Your task to perform on an android device: turn pop-ups on in chrome Image 0: 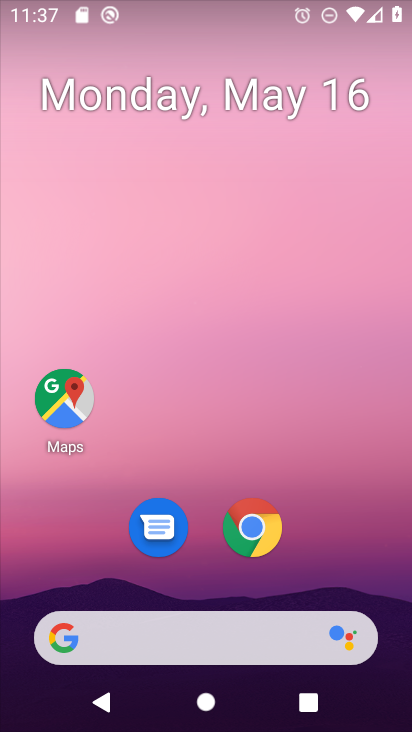
Step 0: click (259, 528)
Your task to perform on an android device: turn pop-ups on in chrome Image 1: 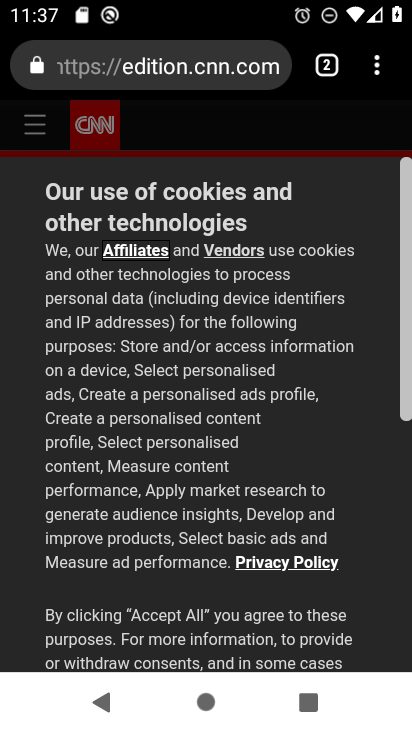
Step 1: click (378, 71)
Your task to perform on an android device: turn pop-ups on in chrome Image 2: 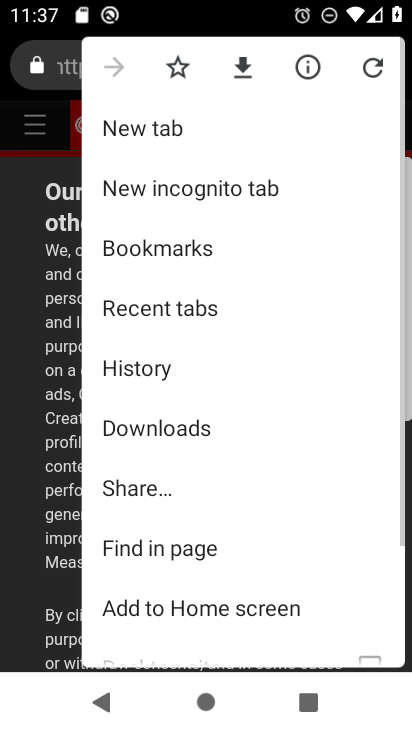
Step 2: drag from (188, 503) to (199, 219)
Your task to perform on an android device: turn pop-ups on in chrome Image 3: 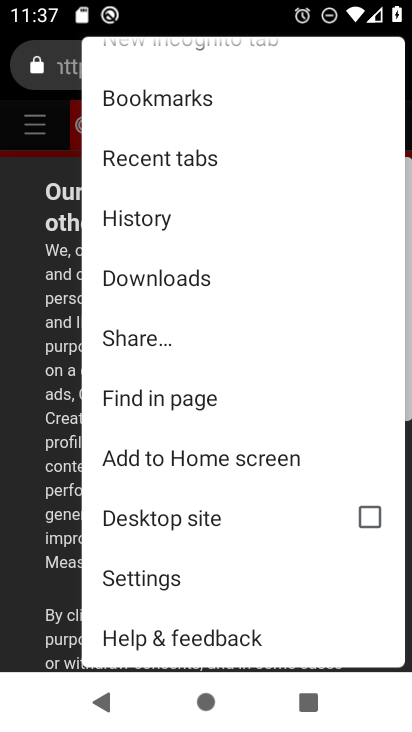
Step 3: click (142, 580)
Your task to perform on an android device: turn pop-ups on in chrome Image 4: 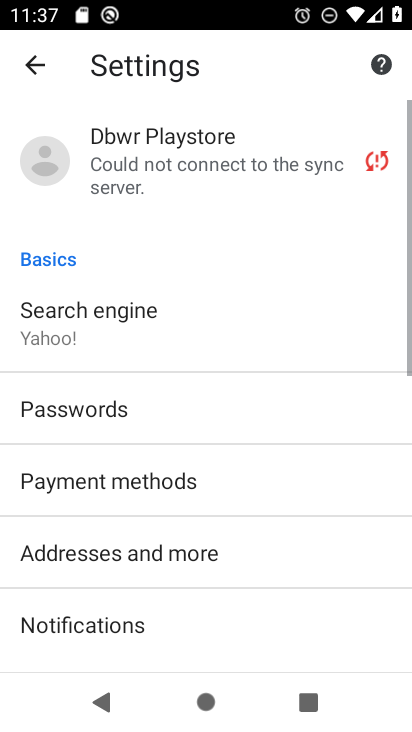
Step 4: drag from (179, 574) to (185, 158)
Your task to perform on an android device: turn pop-ups on in chrome Image 5: 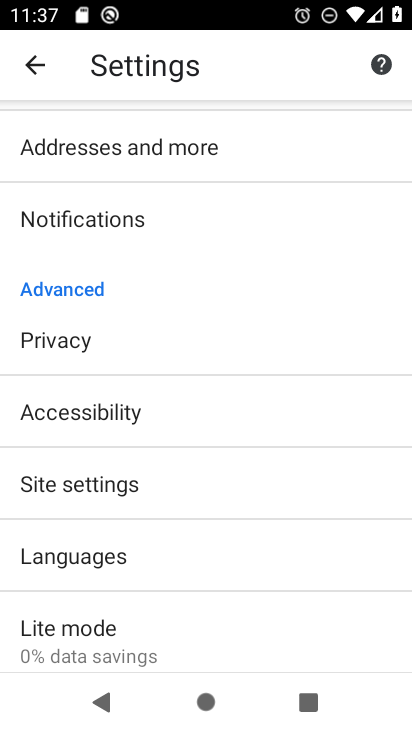
Step 5: drag from (225, 551) to (221, 211)
Your task to perform on an android device: turn pop-ups on in chrome Image 6: 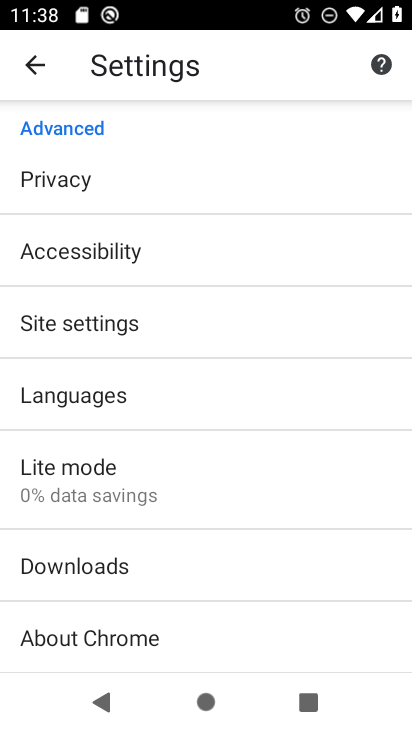
Step 6: click (56, 321)
Your task to perform on an android device: turn pop-ups on in chrome Image 7: 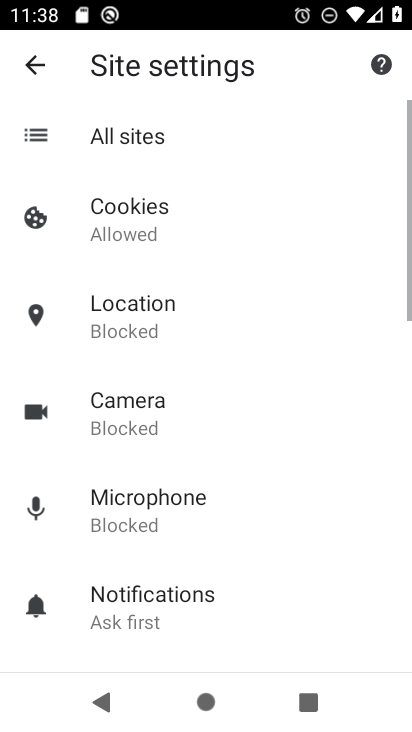
Step 7: drag from (253, 553) to (271, 231)
Your task to perform on an android device: turn pop-ups on in chrome Image 8: 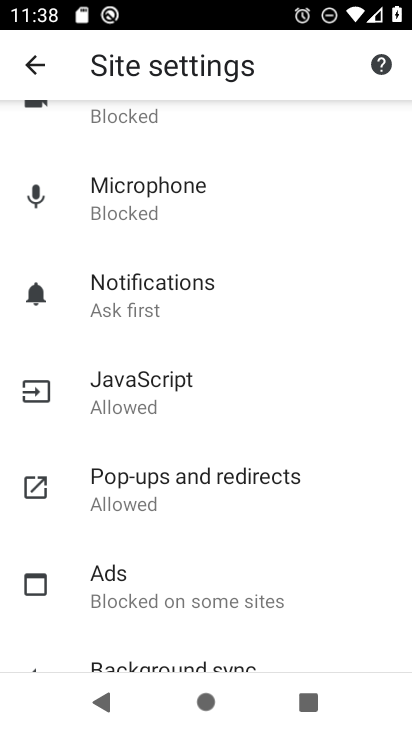
Step 8: click (148, 488)
Your task to perform on an android device: turn pop-ups on in chrome Image 9: 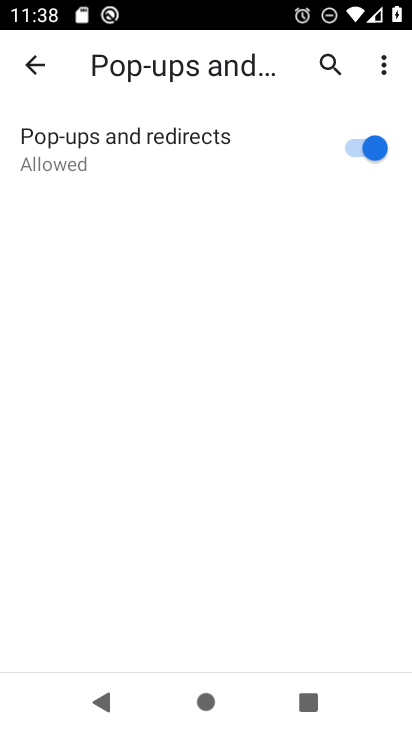
Step 9: task complete